Your task to perform on an android device: Go to Amazon Image 0: 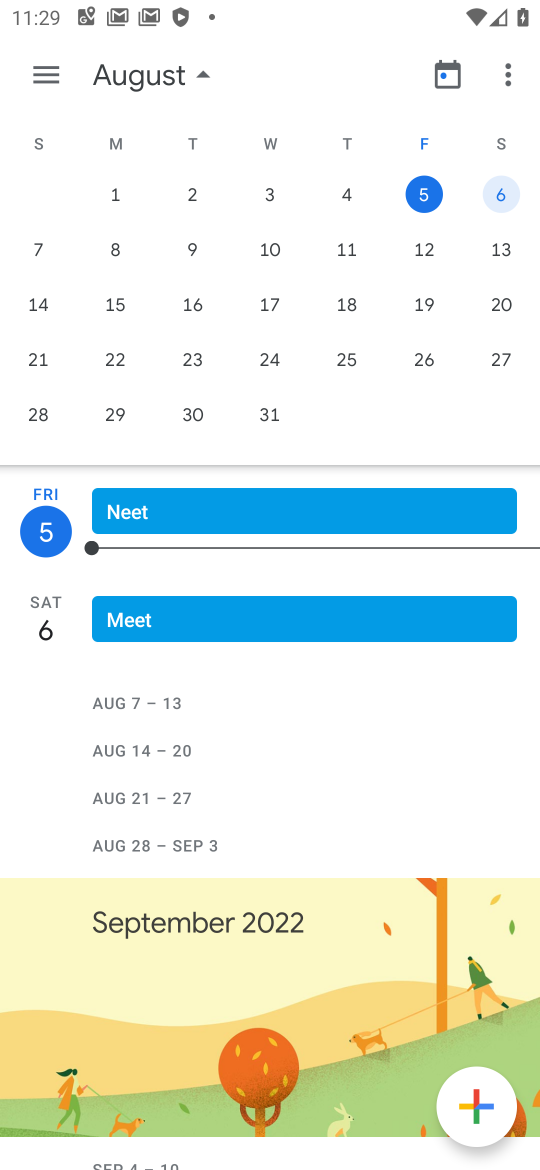
Step 0: press home button
Your task to perform on an android device: Go to Amazon Image 1: 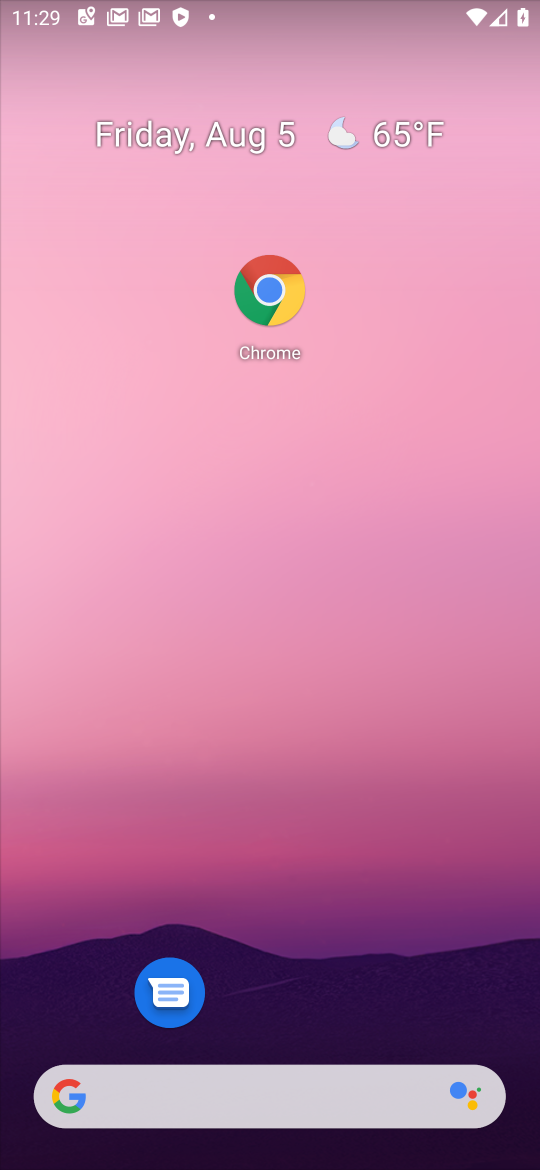
Step 1: drag from (381, 971) to (215, 55)
Your task to perform on an android device: Go to Amazon Image 2: 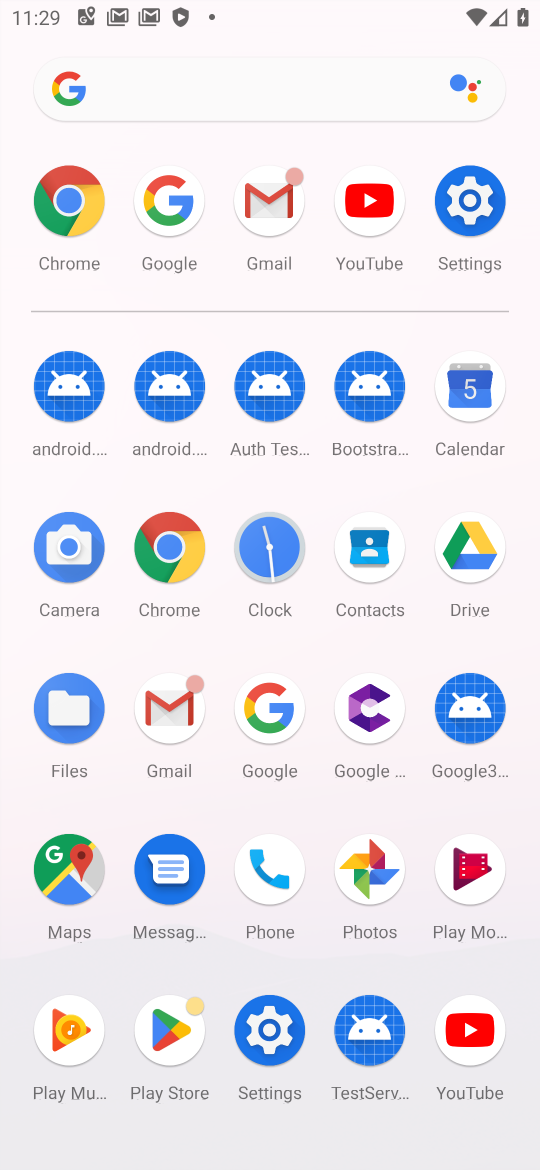
Step 2: click (63, 220)
Your task to perform on an android device: Go to Amazon Image 3: 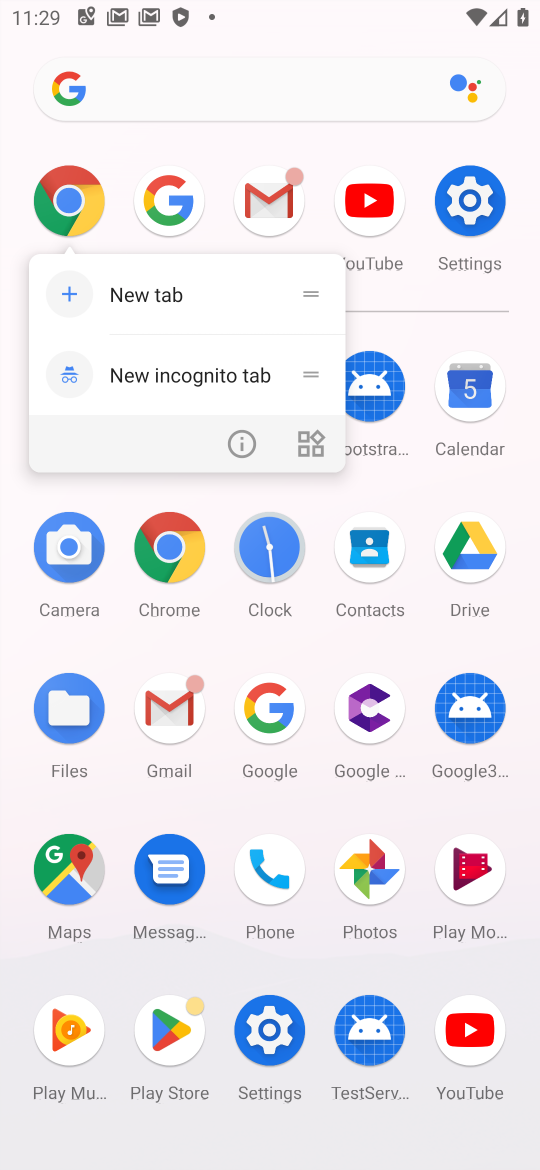
Step 3: click (63, 220)
Your task to perform on an android device: Go to Amazon Image 4: 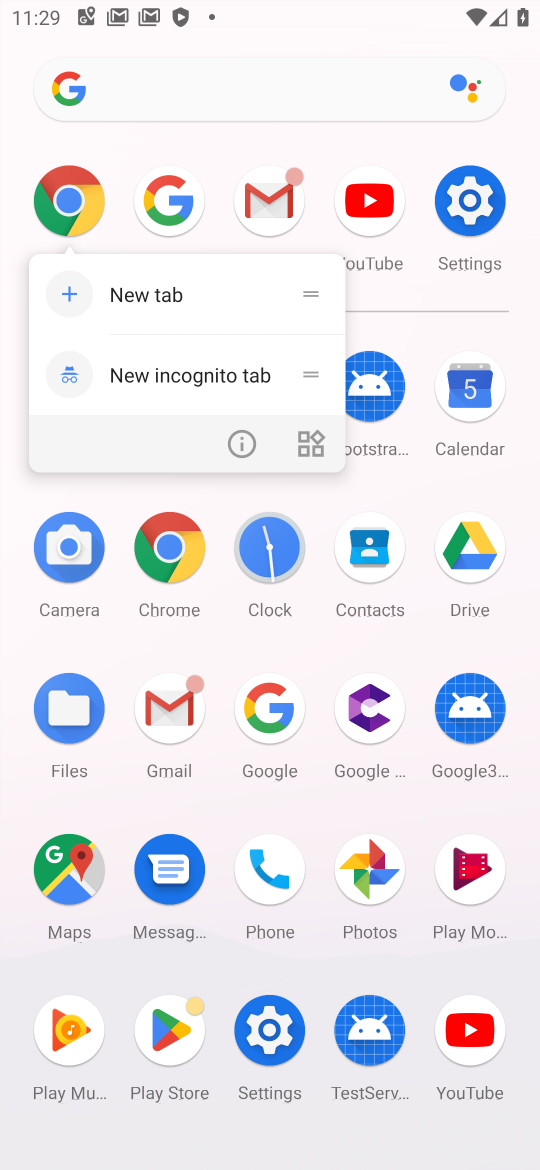
Step 4: click (62, 211)
Your task to perform on an android device: Go to Amazon Image 5: 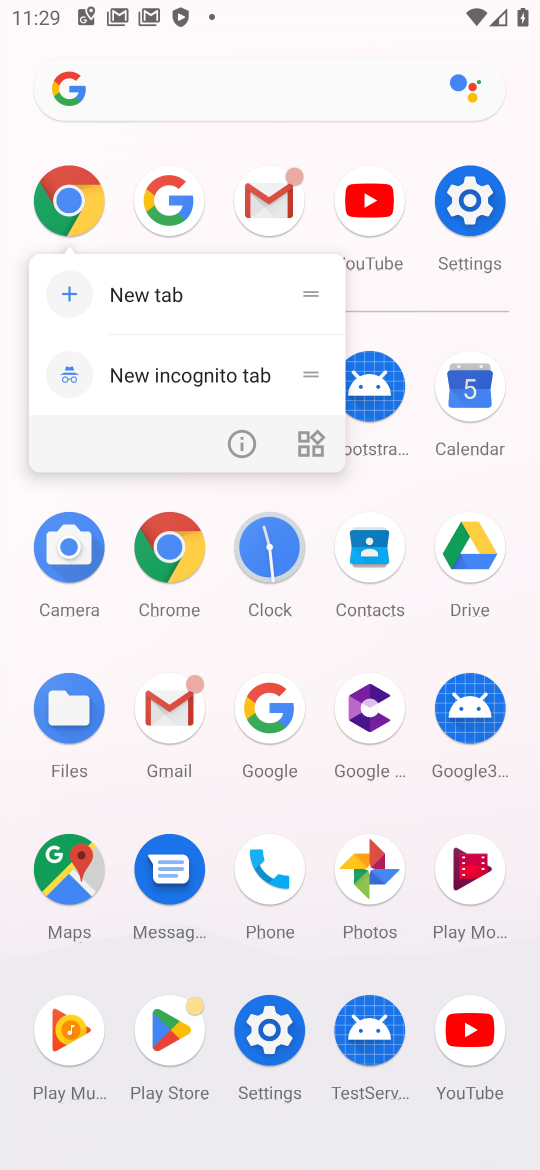
Step 5: click (62, 212)
Your task to perform on an android device: Go to Amazon Image 6: 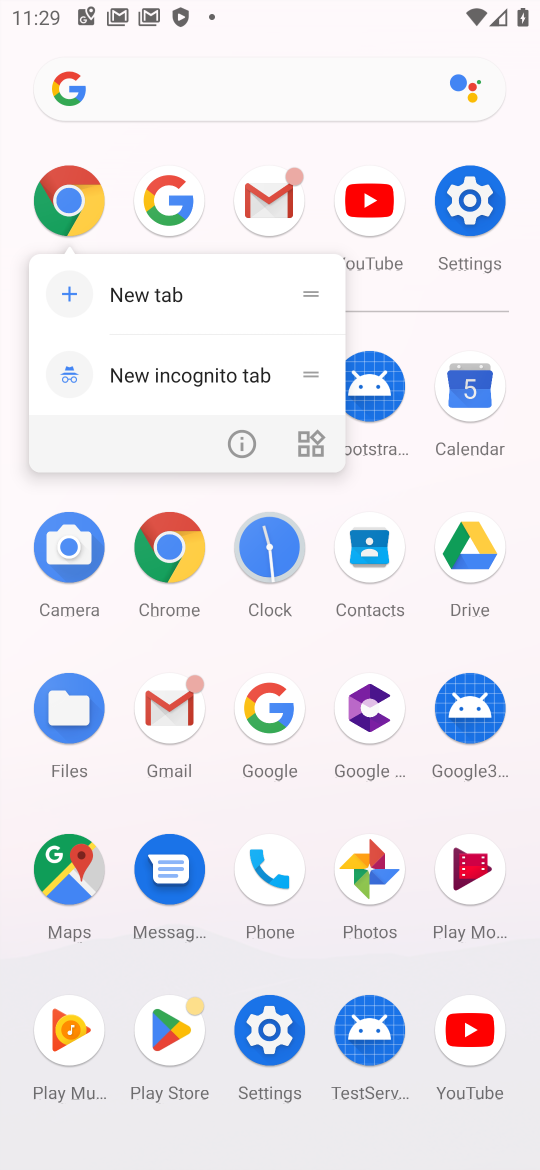
Step 6: click (62, 211)
Your task to perform on an android device: Go to Amazon Image 7: 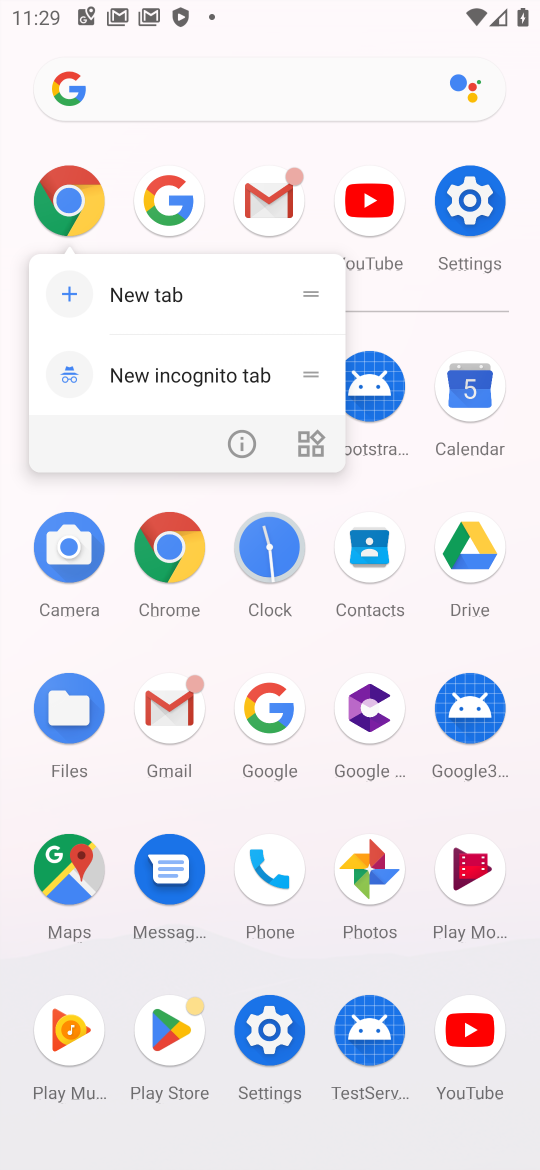
Step 7: click (62, 211)
Your task to perform on an android device: Go to Amazon Image 8: 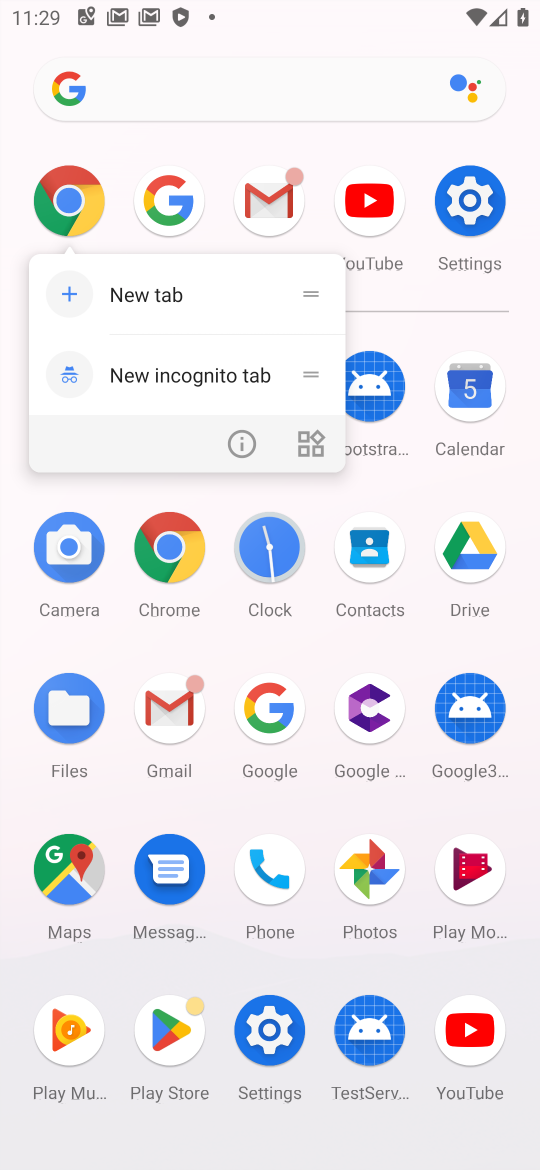
Step 8: click (62, 211)
Your task to perform on an android device: Go to Amazon Image 9: 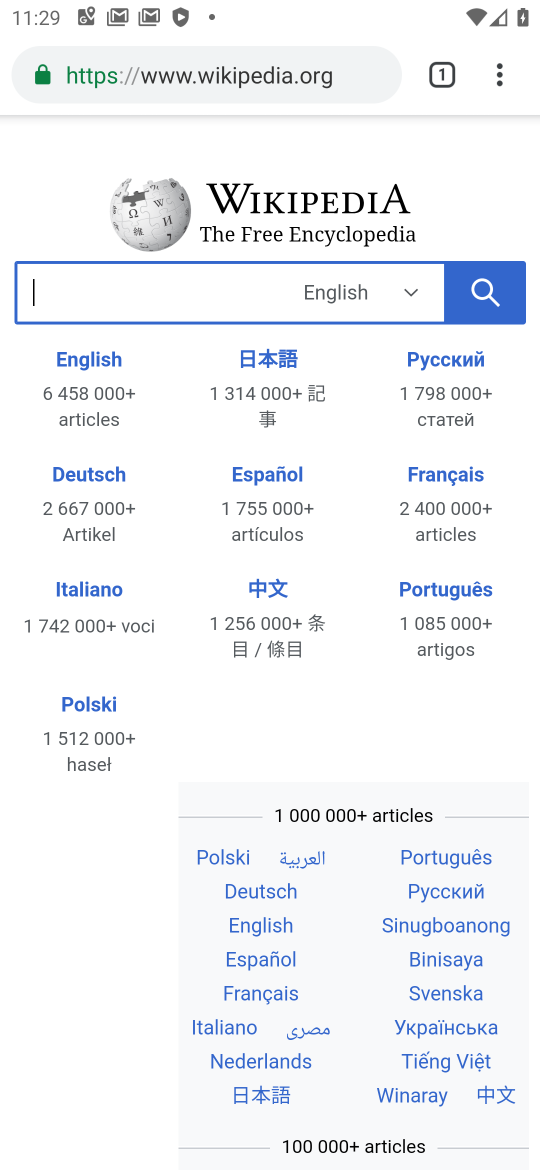
Step 9: click (359, 69)
Your task to perform on an android device: Go to Amazon Image 10: 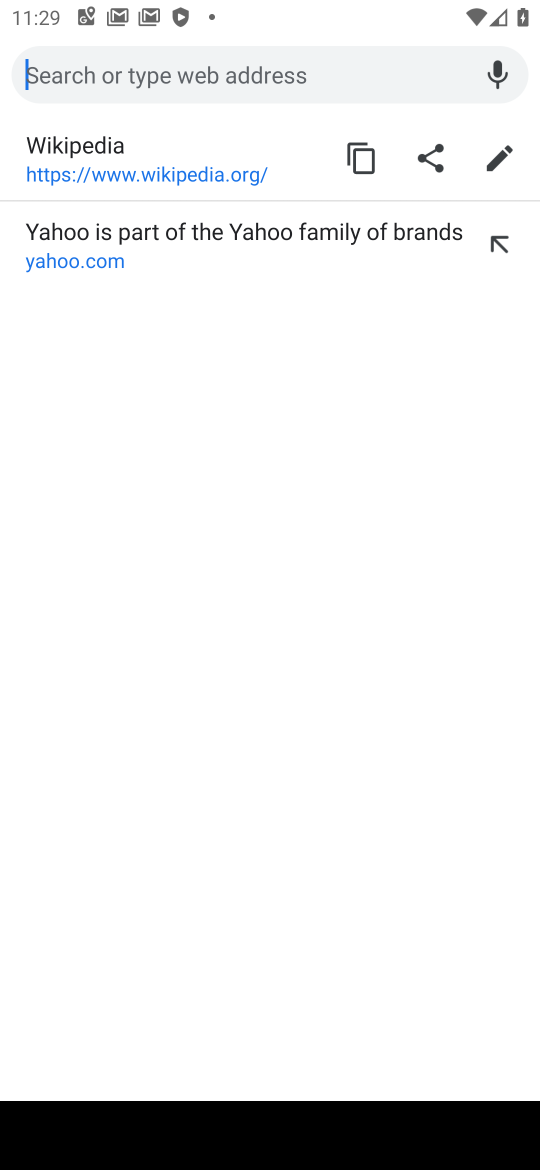
Step 10: type "Amazon"
Your task to perform on an android device: Go to Amazon Image 11: 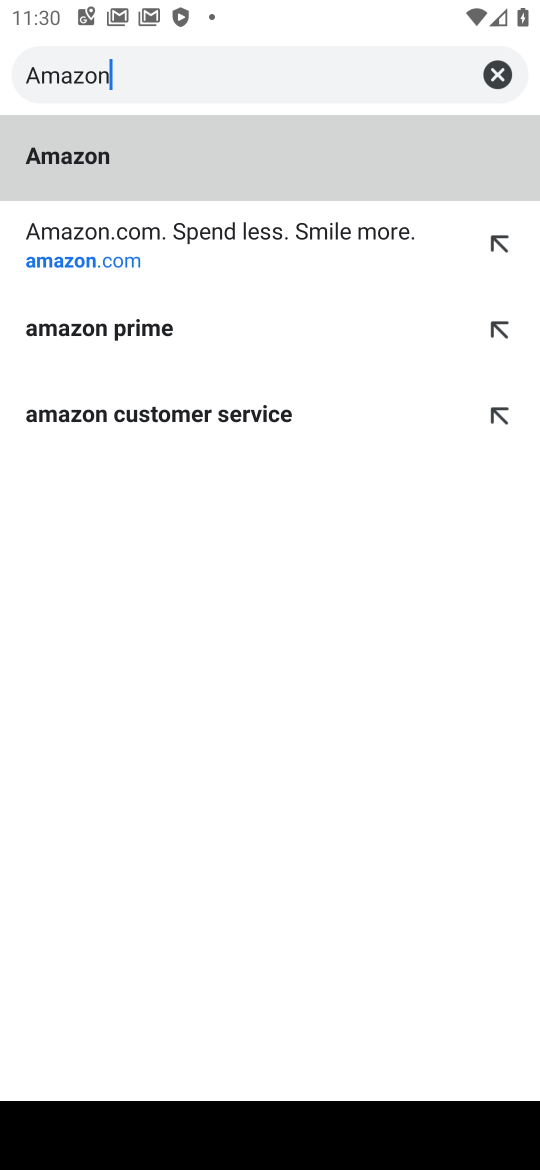
Step 11: click (118, 246)
Your task to perform on an android device: Go to Amazon Image 12: 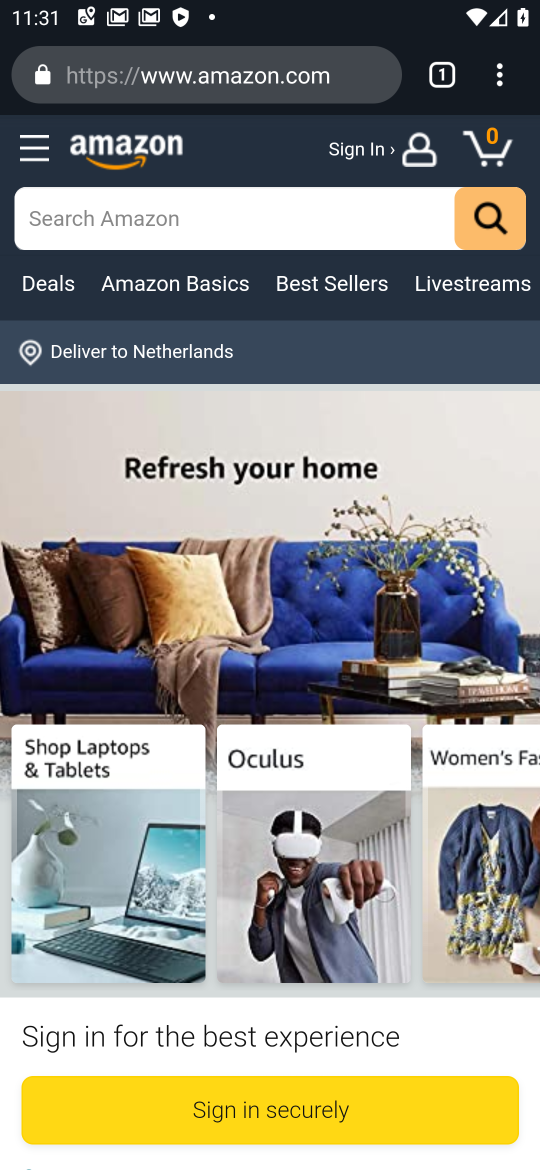
Step 12: task complete